Your task to perform on an android device: turn on javascript in the chrome app Image 0: 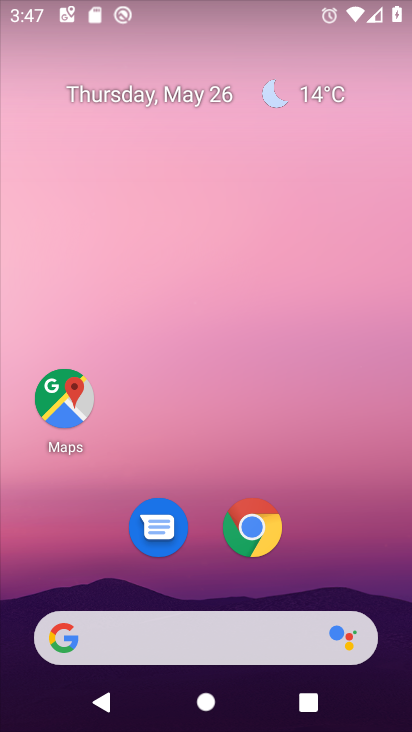
Step 0: click (266, 542)
Your task to perform on an android device: turn on javascript in the chrome app Image 1: 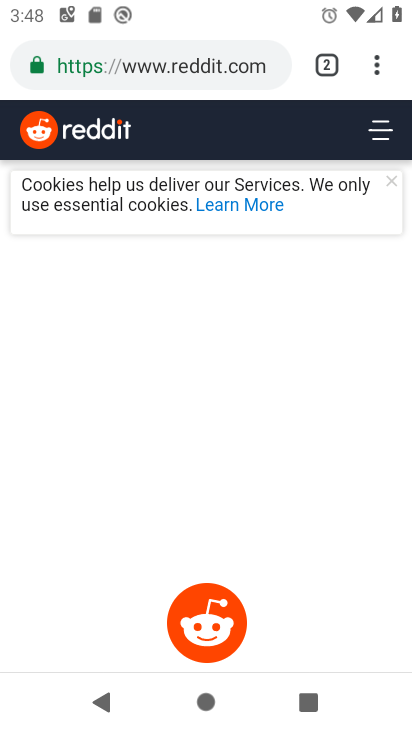
Step 1: click (379, 62)
Your task to perform on an android device: turn on javascript in the chrome app Image 2: 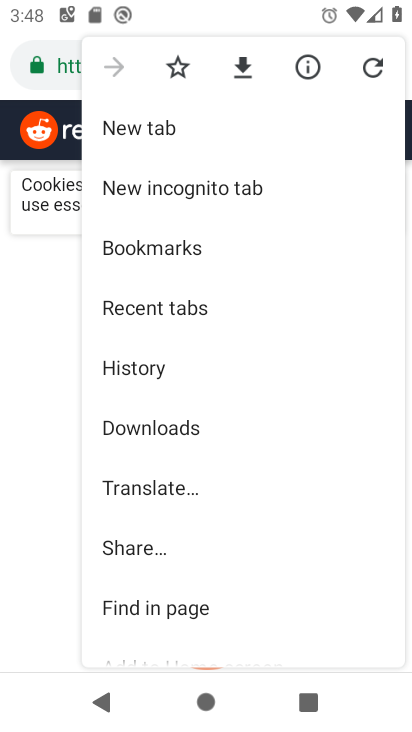
Step 2: drag from (203, 638) to (200, 123)
Your task to perform on an android device: turn on javascript in the chrome app Image 3: 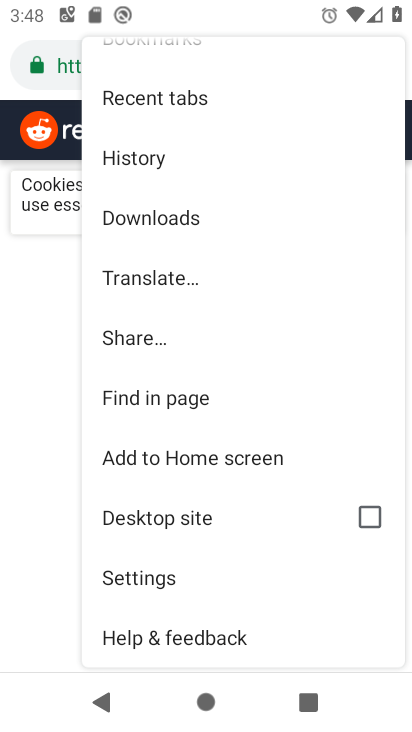
Step 3: click (155, 591)
Your task to perform on an android device: turn on javascript in the chrome app Image 4: 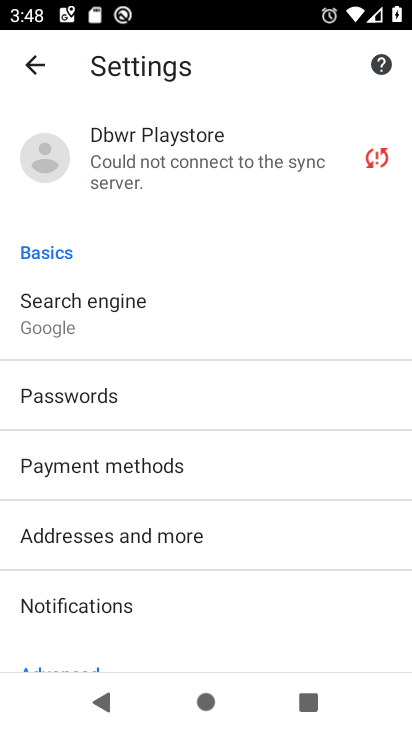
Step 4: drag from (170, 624) to (154, 289)
Your task to perform on an android device: turn on javascript in the chrome app Image 5: 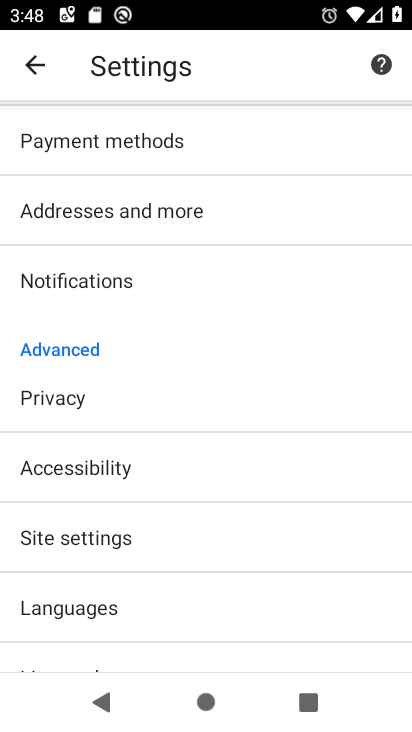
Step 5: click (129, 546)
Your task to perform on an android device: turn on javascript in the chrome app Image 6: 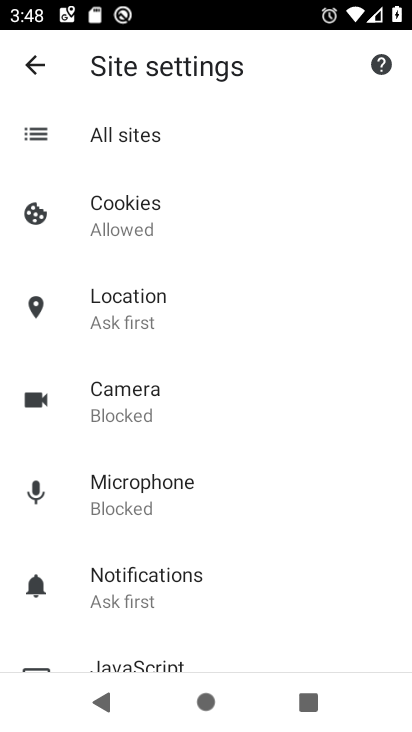
Step 6: drag from (164, 640) to (139, 195)
Your task to perform on an android device: turn on javascript in the chrome app Image 7: 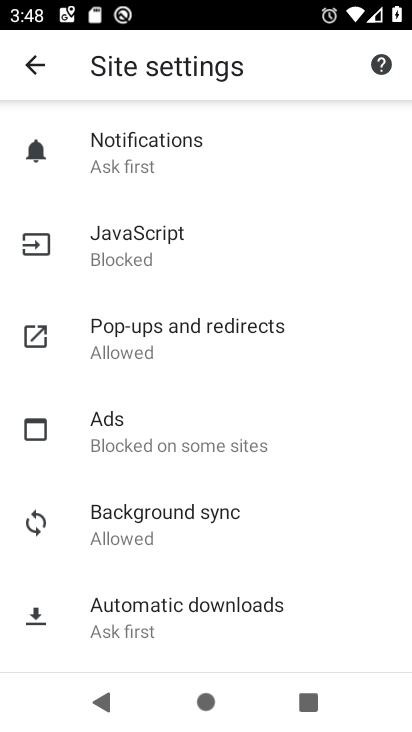
Step 7: click (140, 239)
Your task to perform on an android device: turn on javascript in the chrome app Image 8: 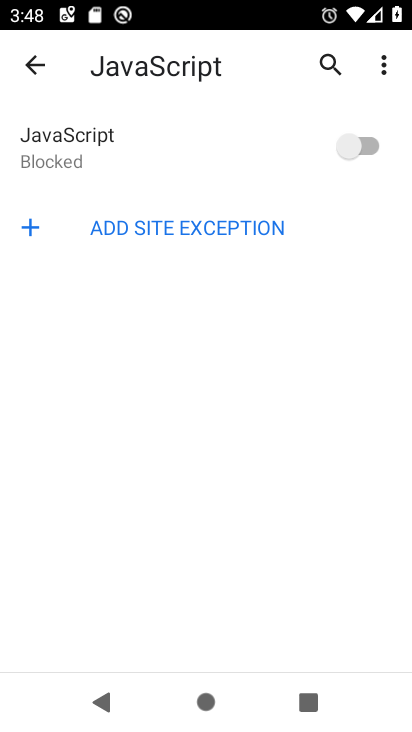
Step 8: click (368, 157)
Your task to perform on an android device: turn on javascript in the chrome app Image 9: 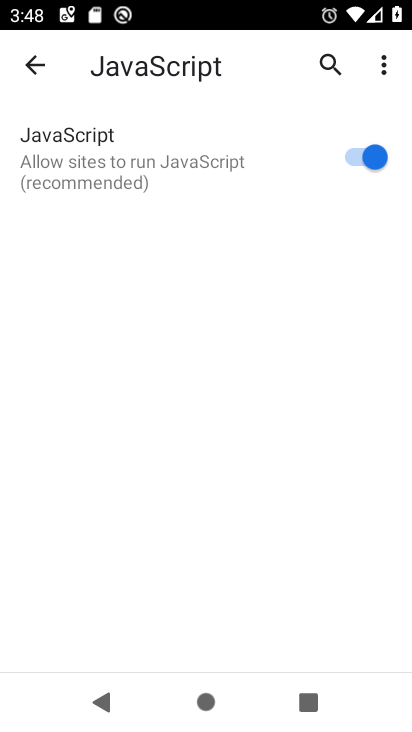
Step 9: task complete